Your task to perform on an android device: Open Google Chrome Image 0: 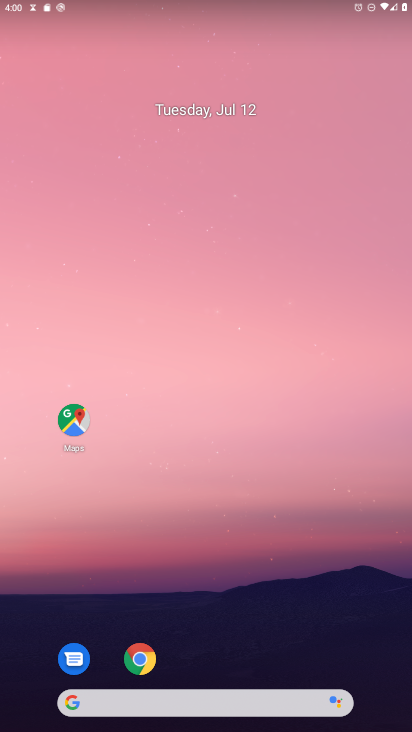
Step 0: click (145, 656)
Your task to perform on an android device: Open Google Chrome Image 1: 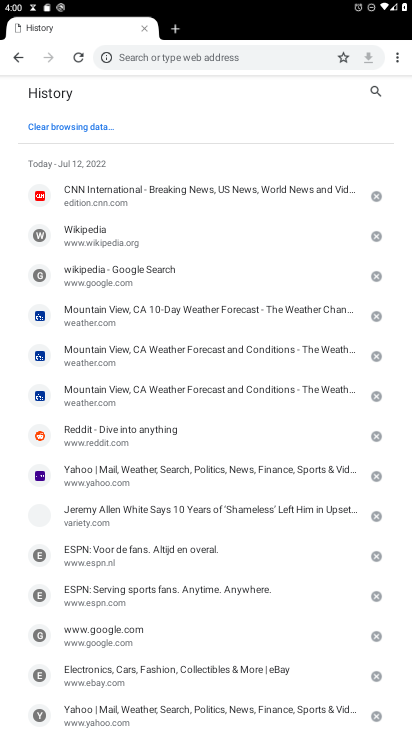
Step 1: click (15, 59)
Your task to perform on an android device: Open Google Chrome Image 2: 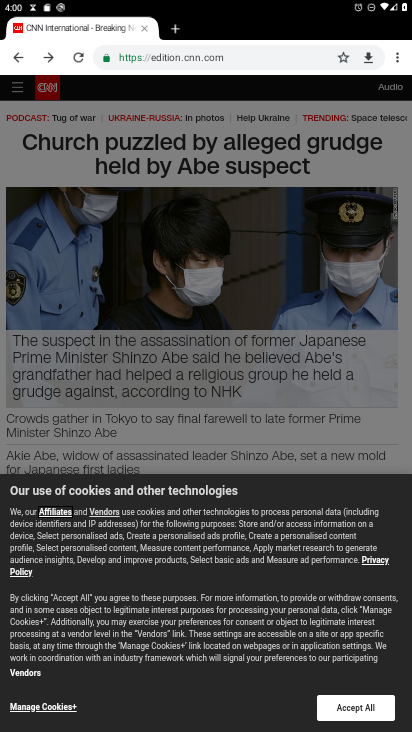
Step 2: task complete